Your task to perform on an android device: install app "Airtel Thanks" Image 0: 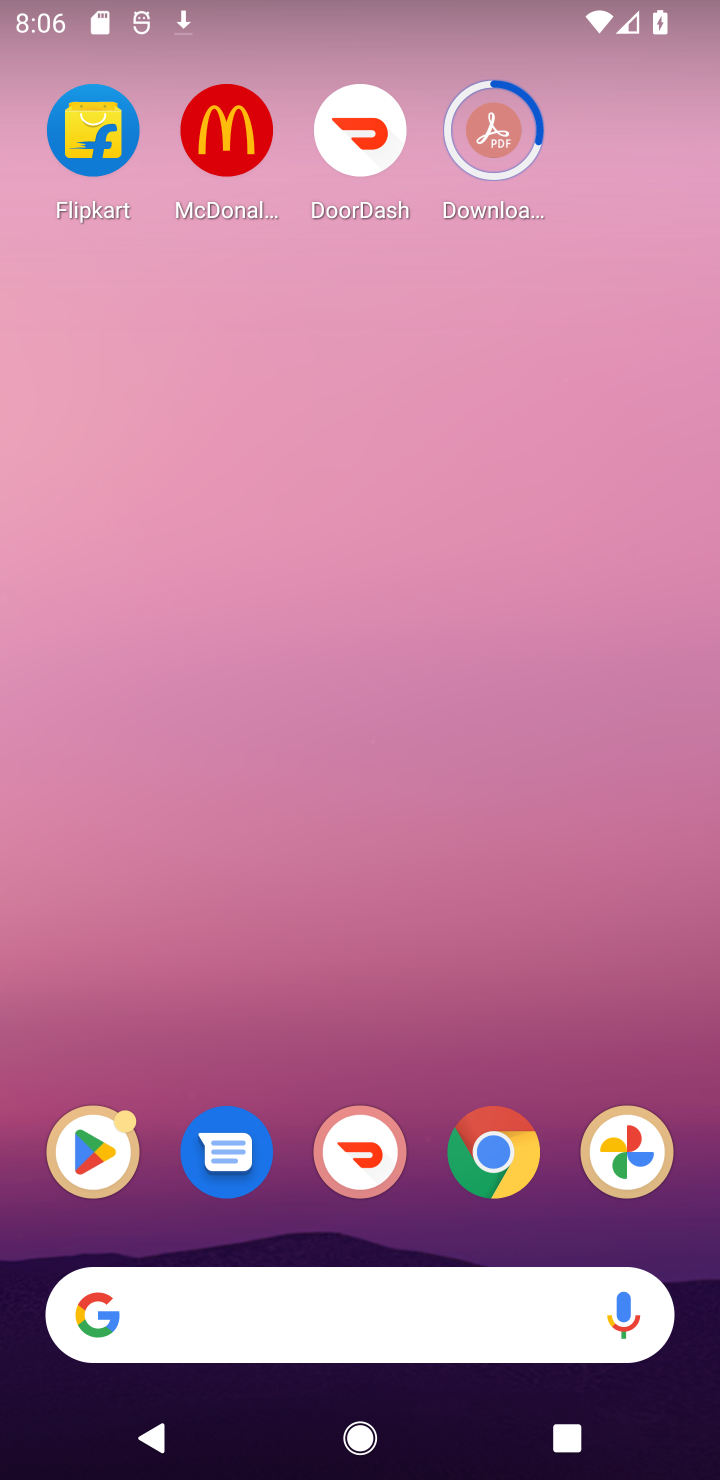
Step 0: press home button
Your task to perform on an android device: install app "Airtel Thanks" Image 1: 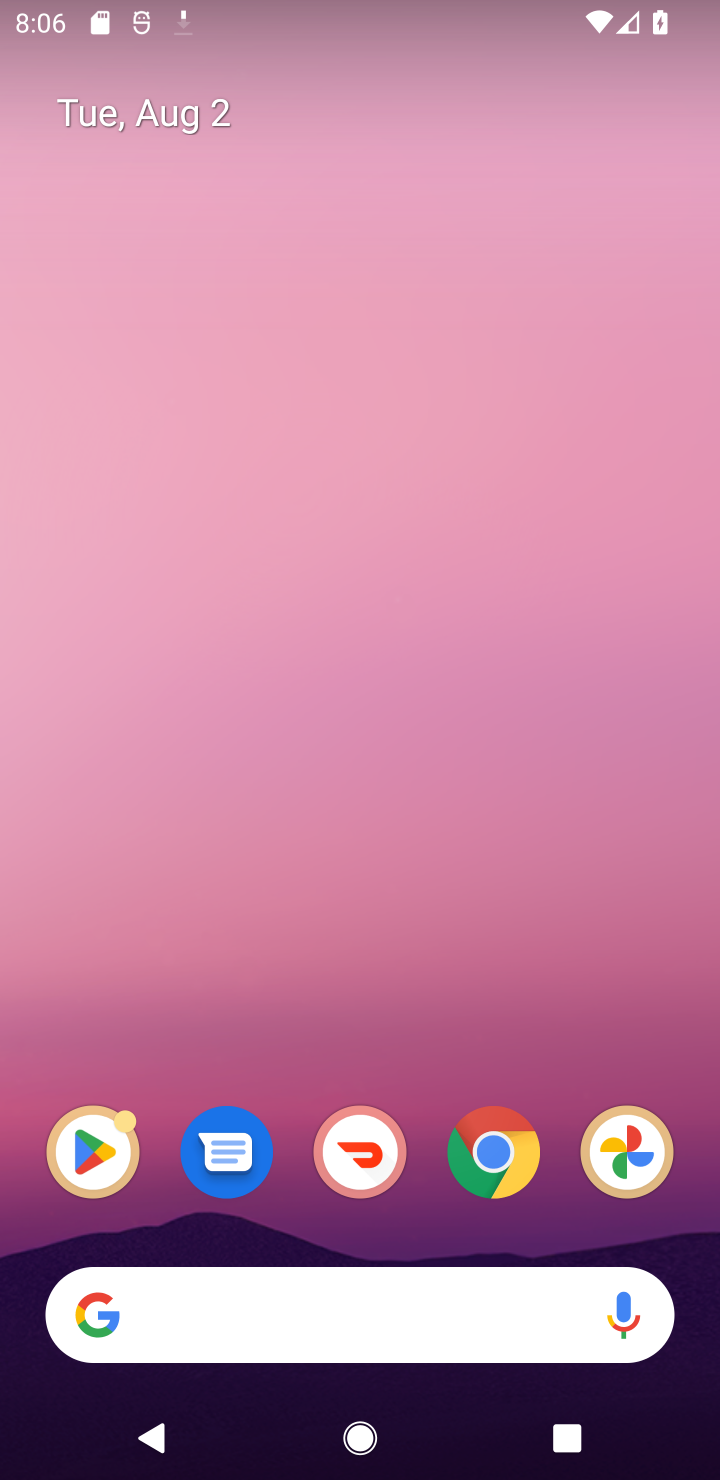
Step 1: drag from (302, 827) to (328, 390)
Your task to perform on an android device: install app "Airtel Thanks" Image 2: 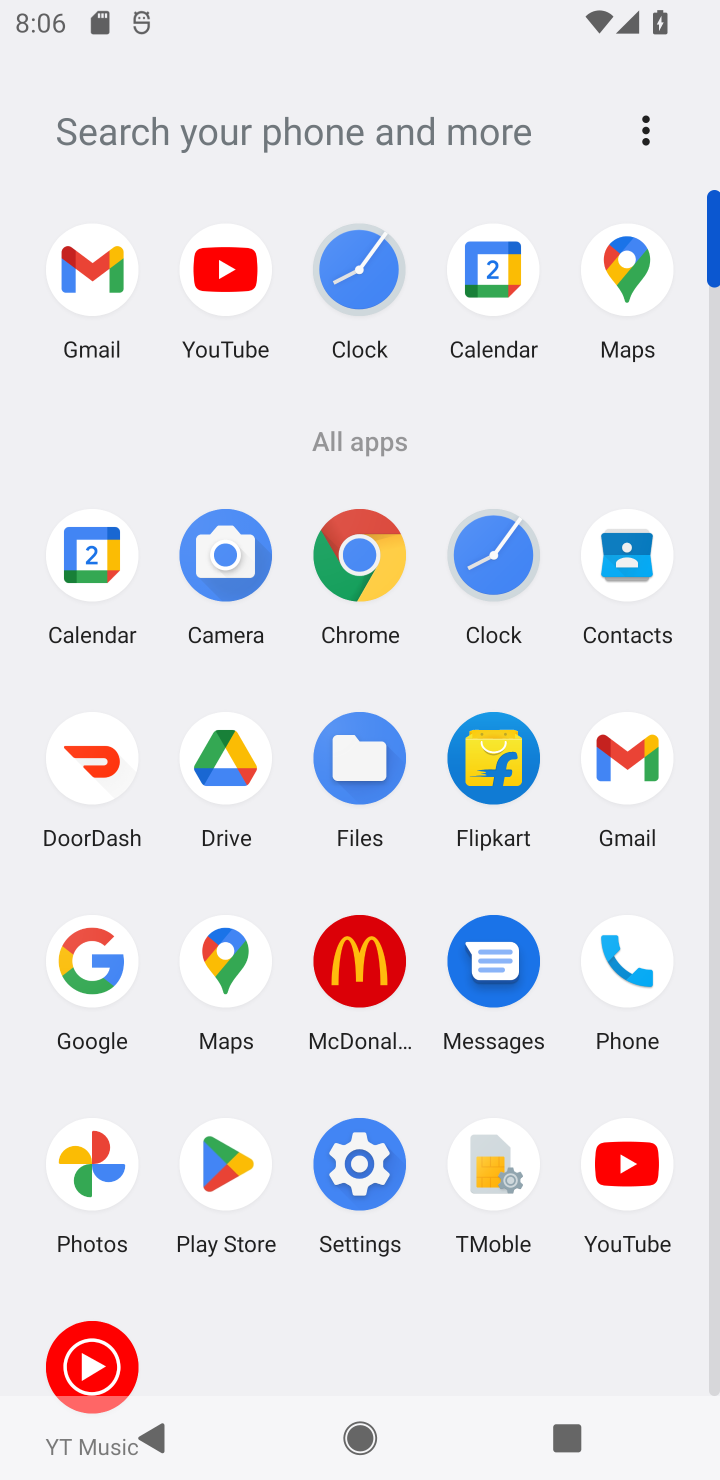
Step 2: click (228, 1167)
Your task to perform on an android device: install app "Airtel Thanks" Image 3: 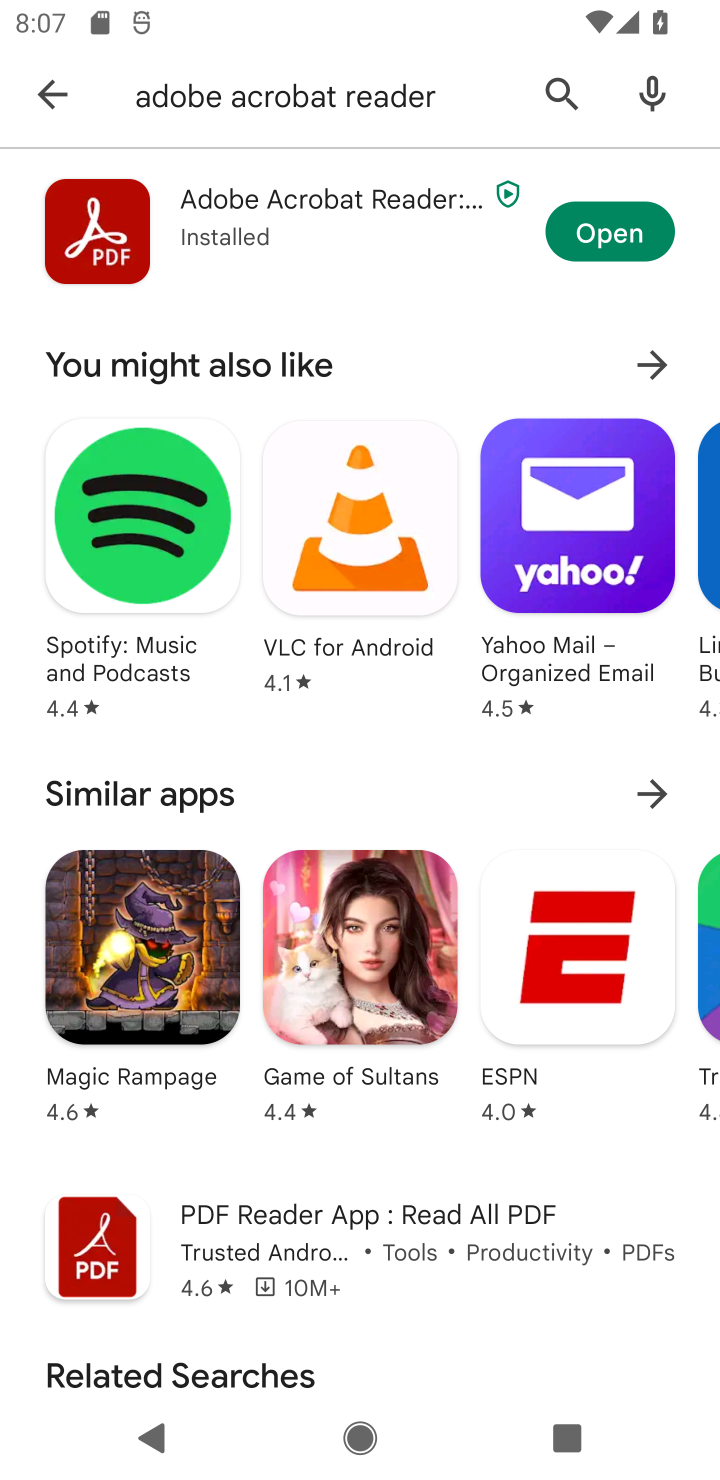
Step 3: click (41, 84)
Your task to perform on an android device: install app "Airtel Thanks" Image 4: 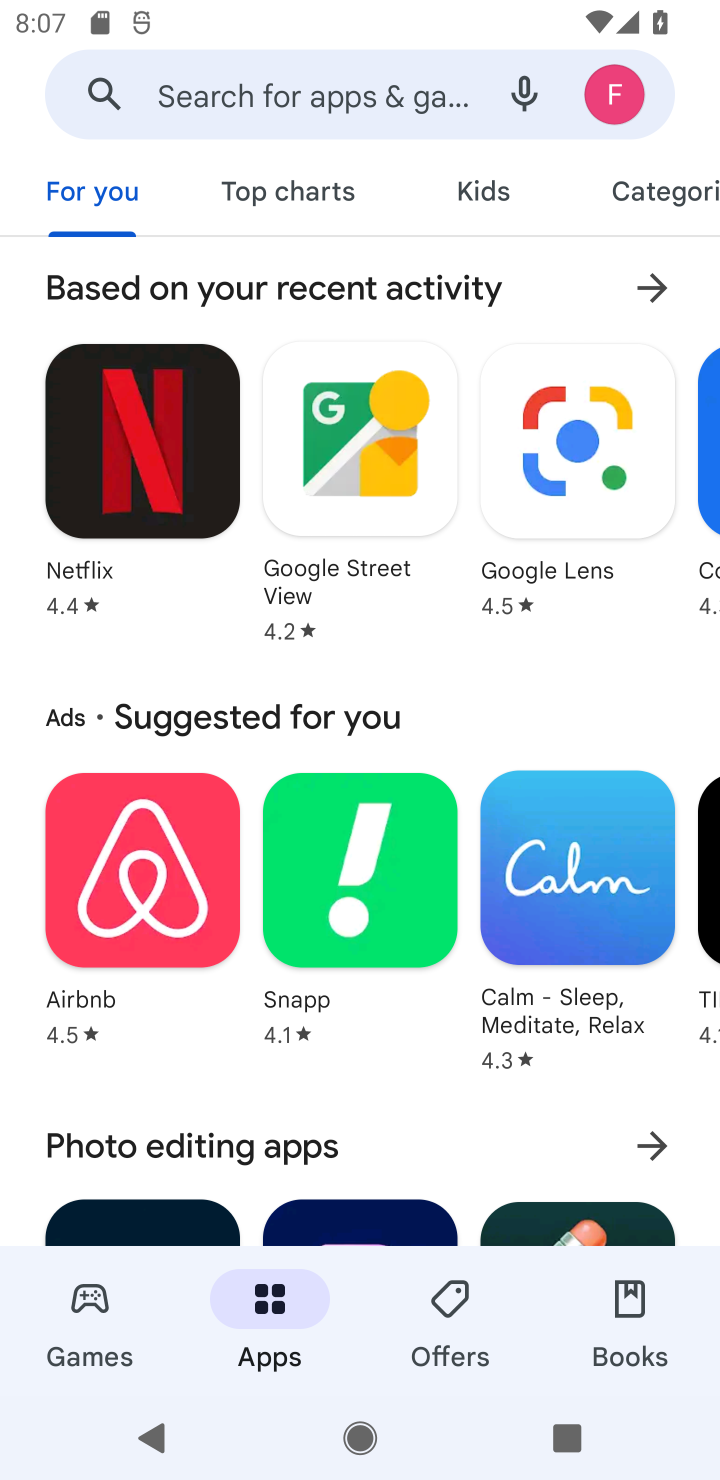
Step 4: click (289, 84)
Your task to perform on an android device: install app "Airtel Thanks" Image 5: 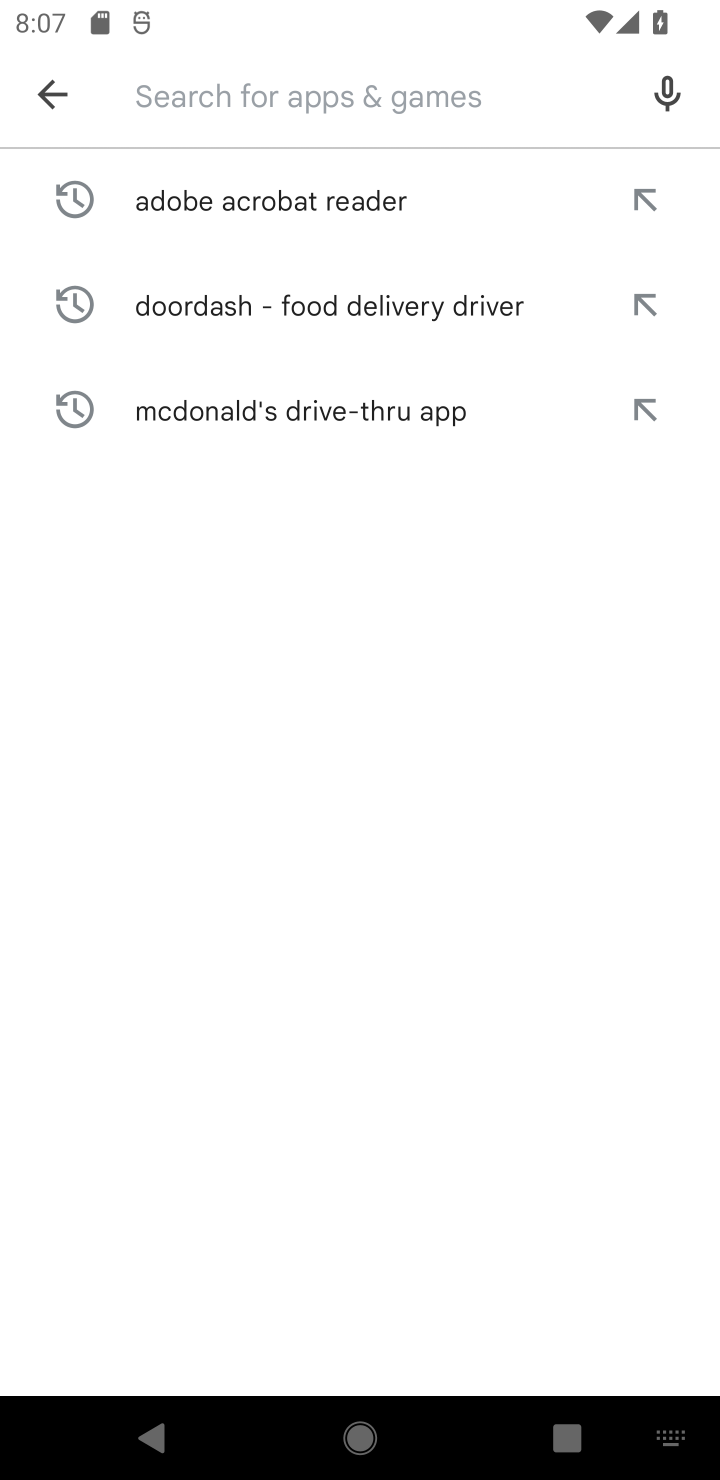
Step 5: type "airtel thanks"
Your task to perform on an android device: install app "Airtel Thanks" Image 6: 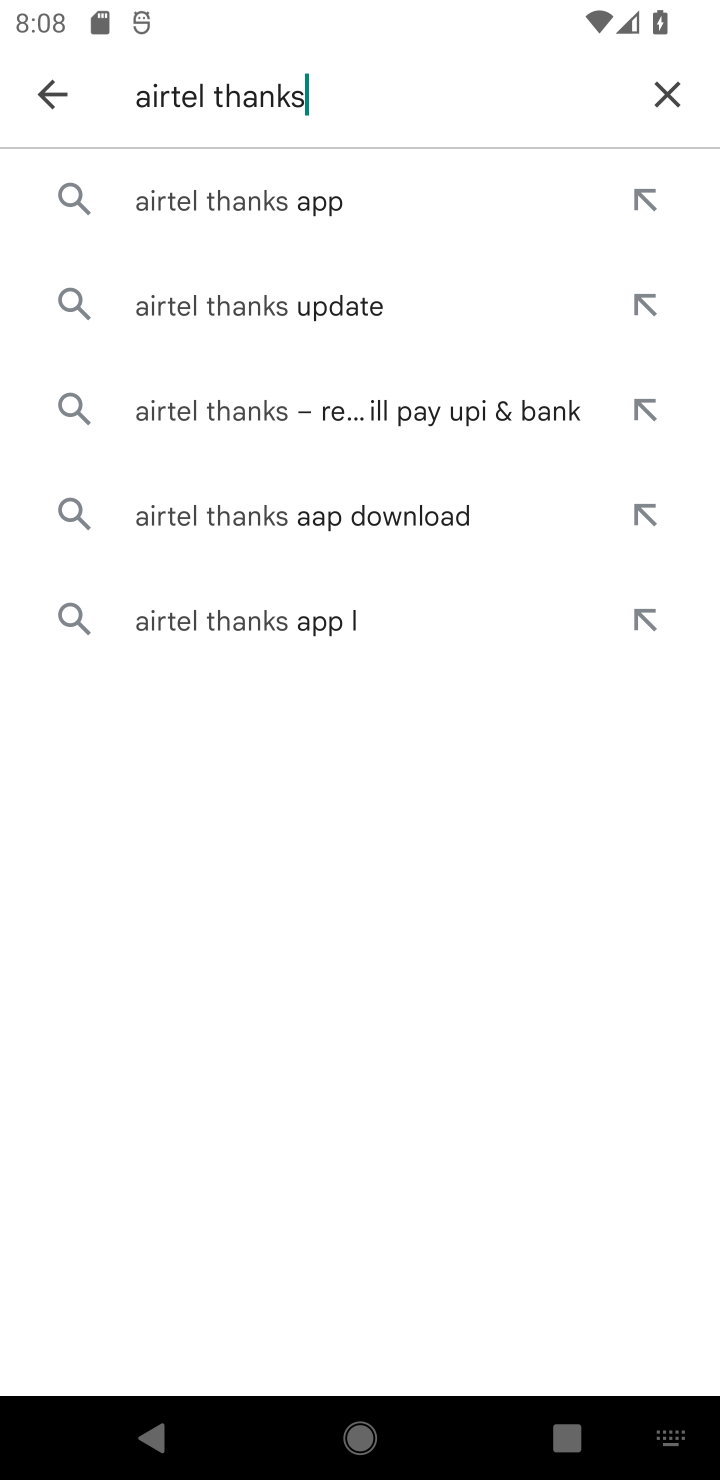
Step 6: click (221, 195)
Your task to perform on an android device: install app "Airtel Thanks" Image 7: 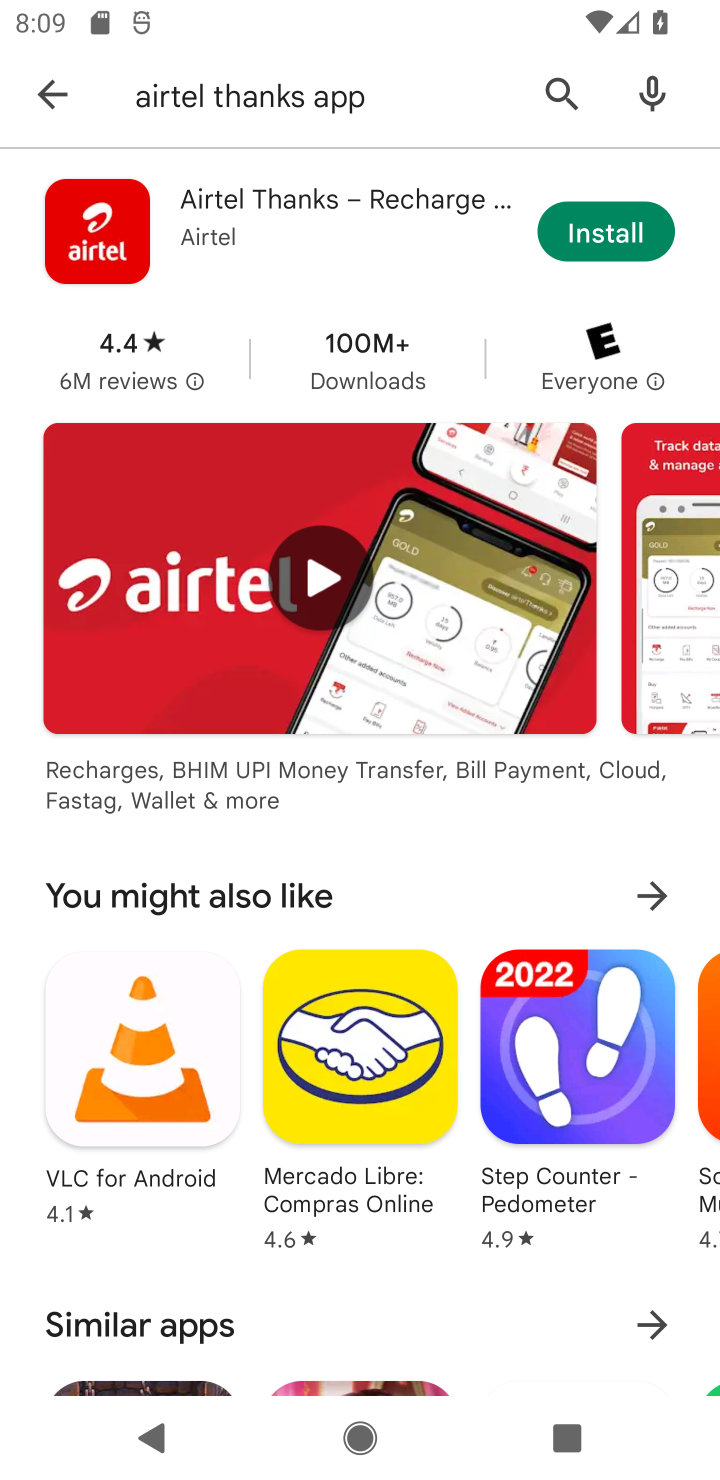
Step 7: click (553, 221)
Your task to perform on an android device: install app "Airtel Thanks" Image 8: 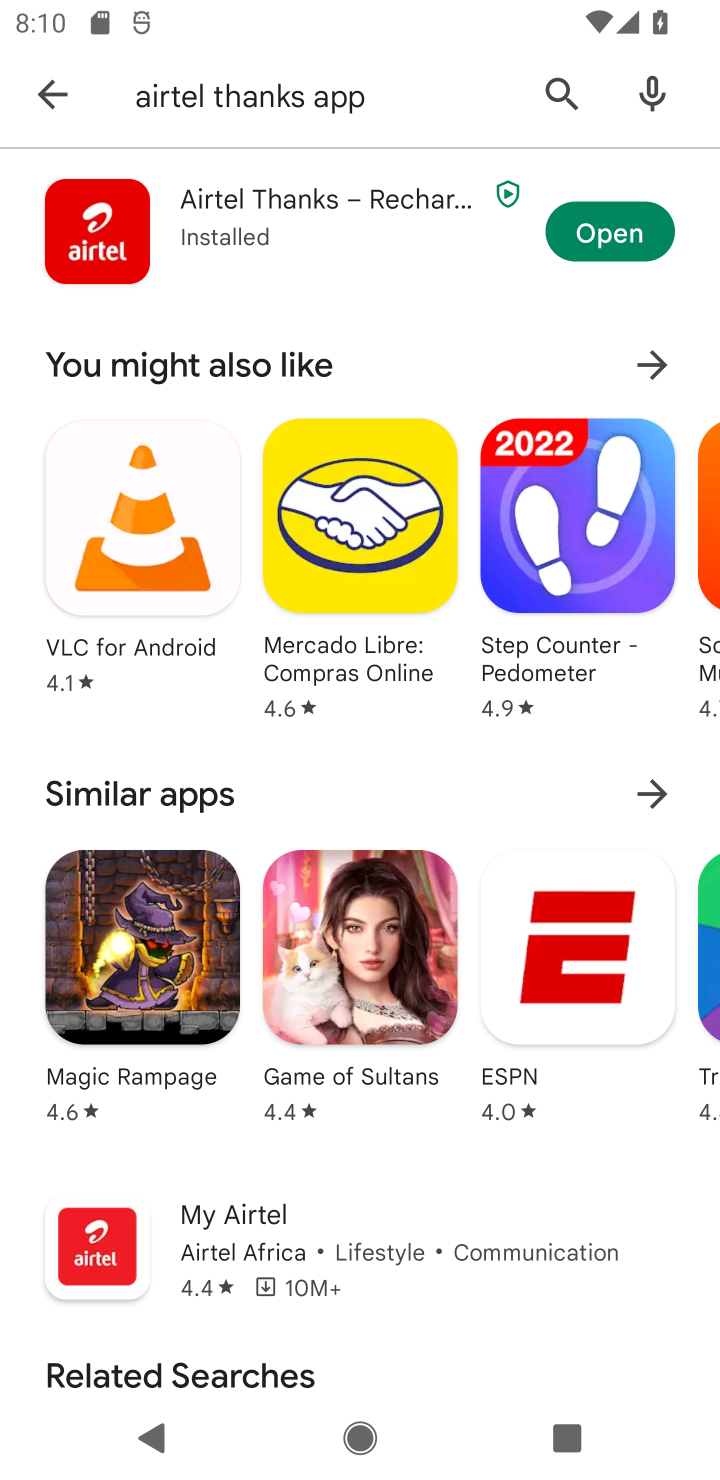
Step 8: task complete